Your task to perform on an android device: visit the assistant section in the google photos Image 0: 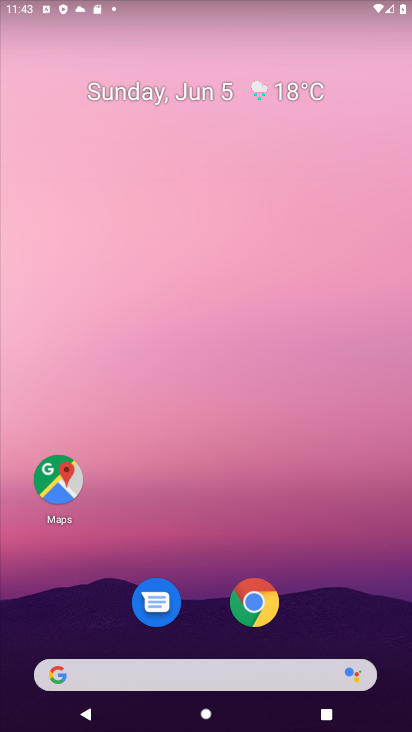
Step 0: task complete